Your task to perform on an android device: See recent photos Image 0: 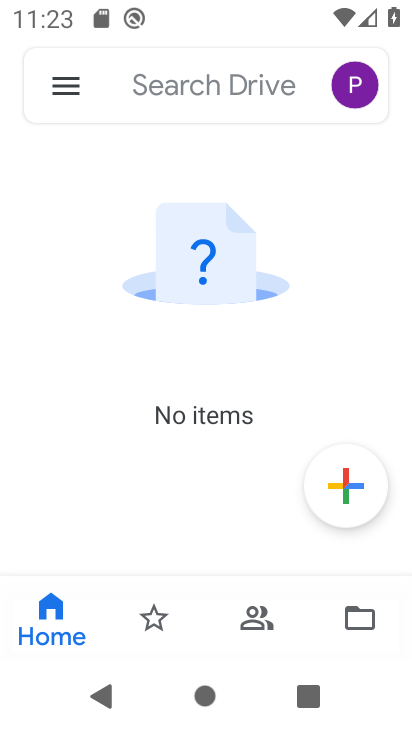
Step 0: press home button
Your task to perform on an android device: See recent photos Image 1: 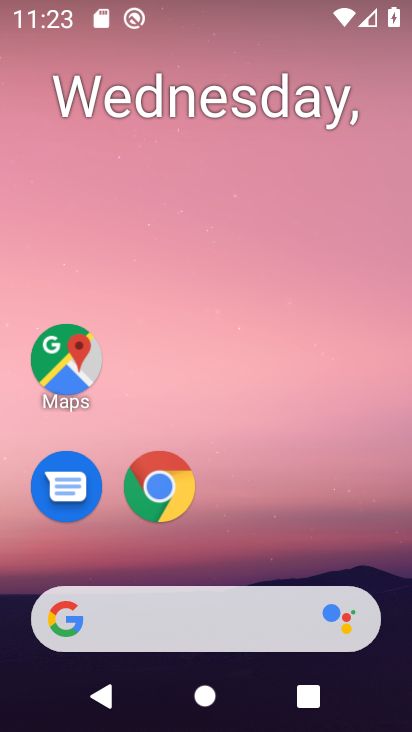
Step 1: drag from (341, 527) to (323, 78)
Your task to perform on an android device: See recent photos Image 2: 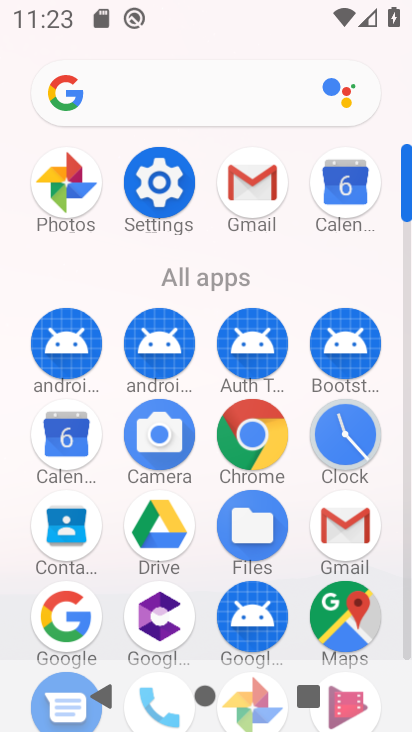
Step 2: drag from (391, 544) to (395, 336)
Your task to perform on an android device: See recent photos Image 3: 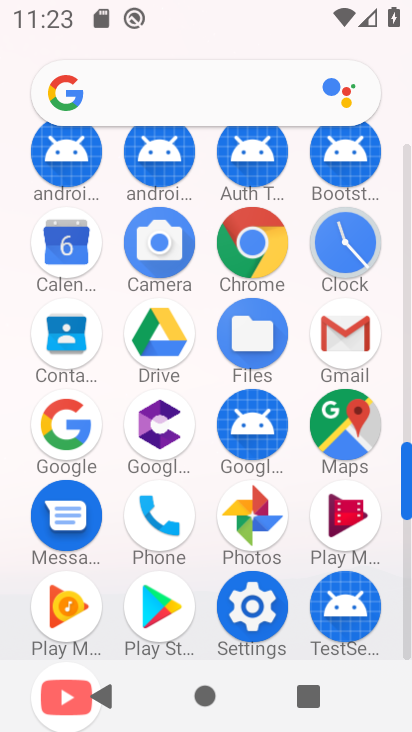
Step 3: click (263, 517)
Your task to perform on an android device: See recent photos Image 4: 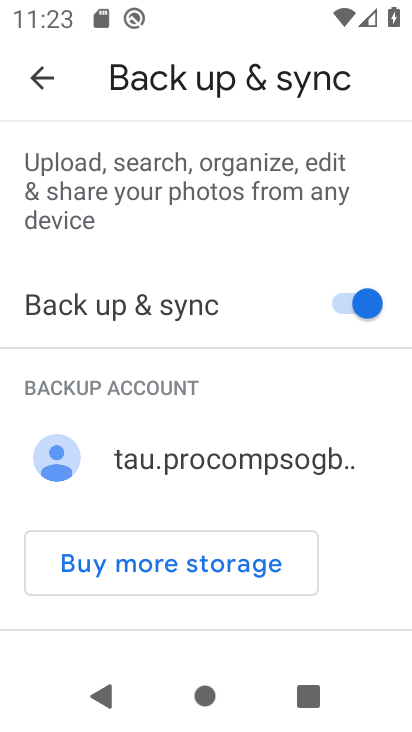
Step 4: task complete